Your task to perform on an android device: turn on airplane mode Image 0: 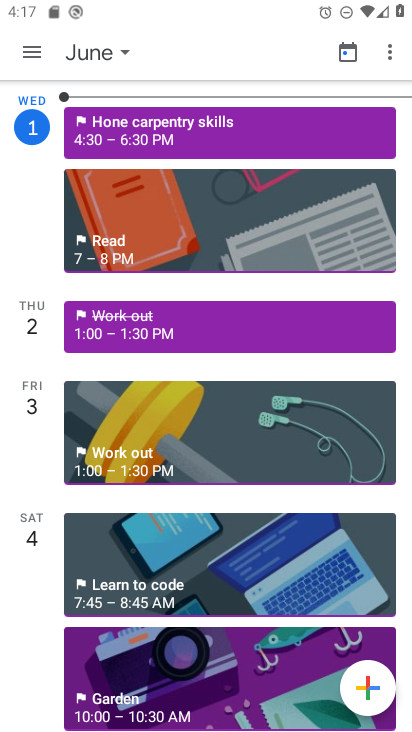
Step 0: press home button
Your task to perform on an android device: turn on airplane mode Image 1: 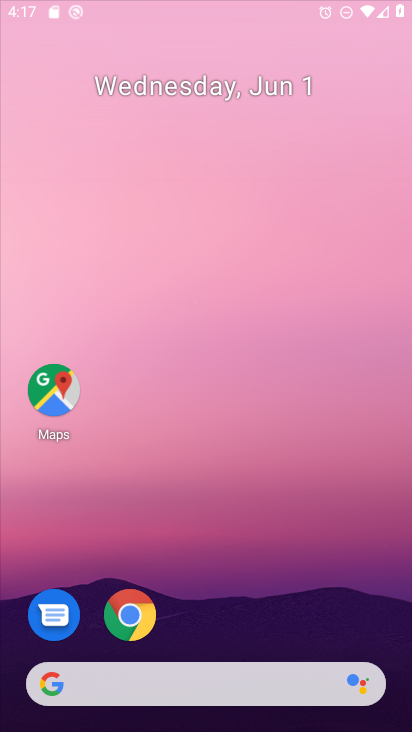
Step 1: drag from (281, 5) to (278, 479)
Your task to perform on an android device: turn on airplane mode Image 2: 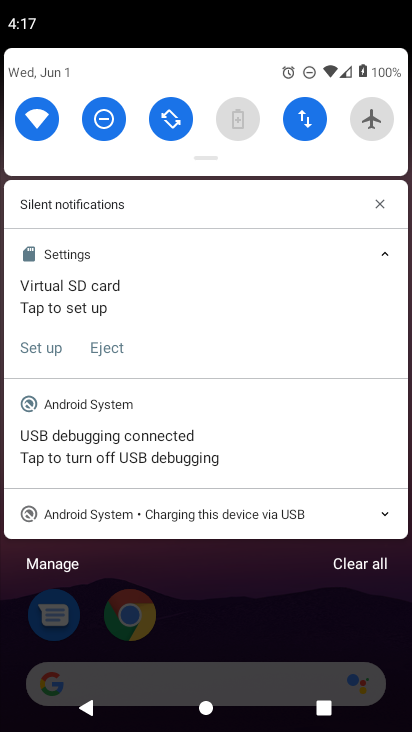
Step 2: click (372, 112)
Your task to perform on an android device: turn on airplane mode Image 3: 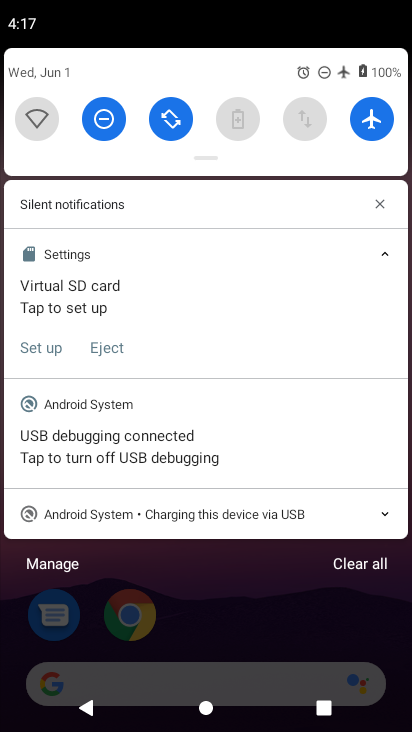
Step 3: task complete